Your task to perform on an android device: Open internet settings Image 0: 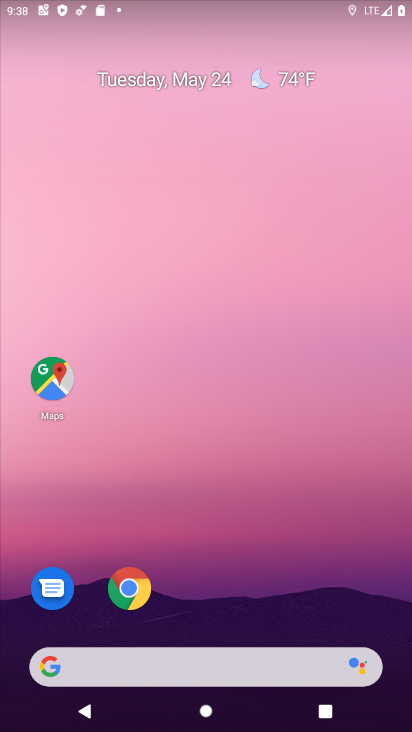
Step 0: drag from (237, 537) to (223, 44)
Your task to perform on an android device: Open internet settings Image 1: 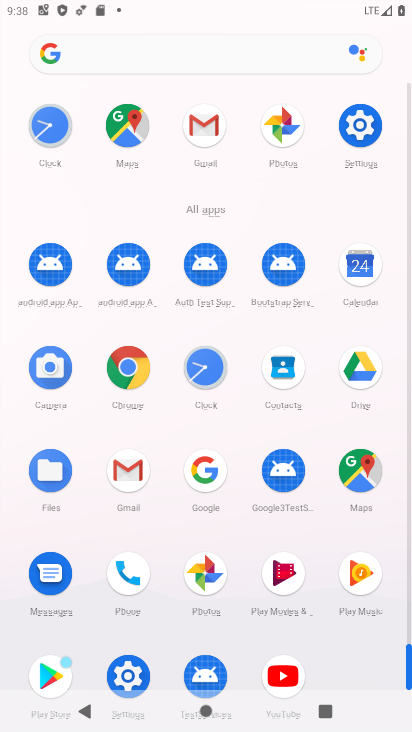
Step 1: click (359, 120)
Your task to perform on an android device: Open internet settings Image 2: 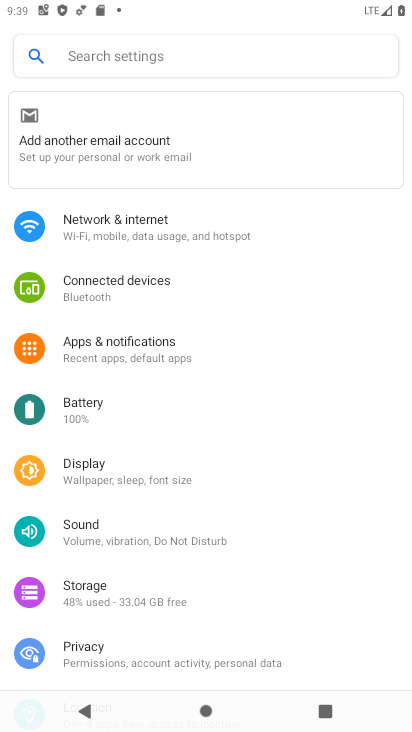
Step 2: click (161, 241)
Your task to perform on an android device: Open internet settings Image 3: 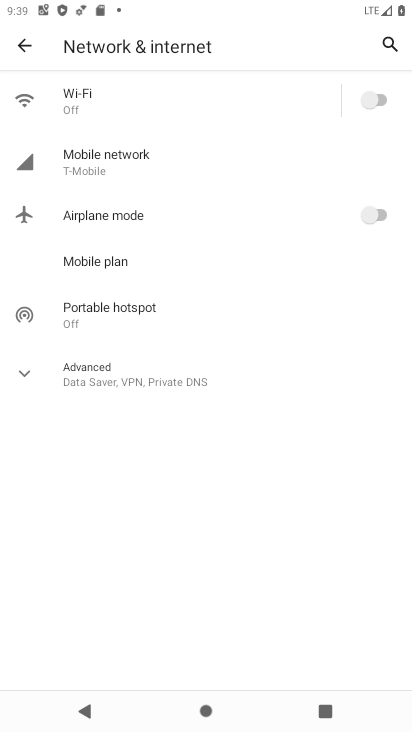
Step 3: click (25, 374)
Your task to perform on an android device: Open internet settings Image 4: 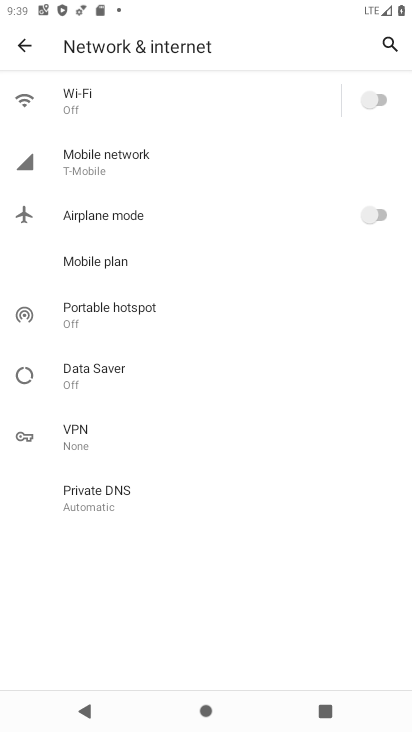
Step 4: task complete